Your task to perform on an android device: Search for vegetarian restaurants on Maps Image 0: 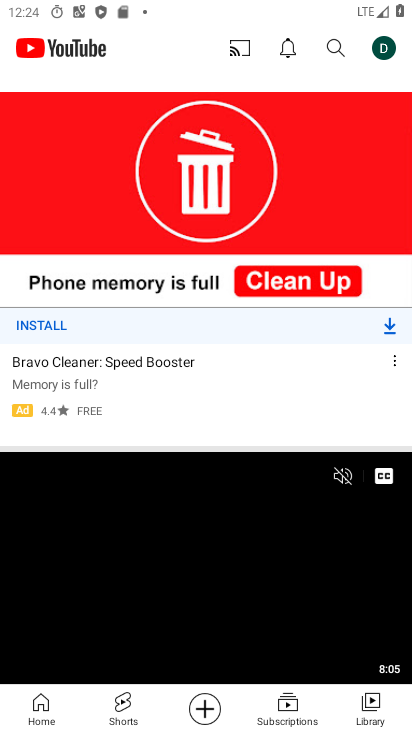
Step 0: press home button
Your task to perform on an android device: Search for vegetarian restaurants on Maps Image 1: 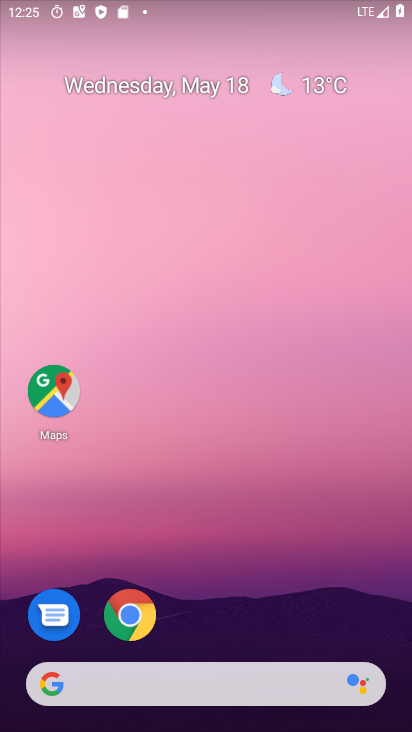
Step 1: drag from (154, 686) to (298, 198)
Your task to perform on an android device: Search for vegetarian restaurants on Maps Image 2: 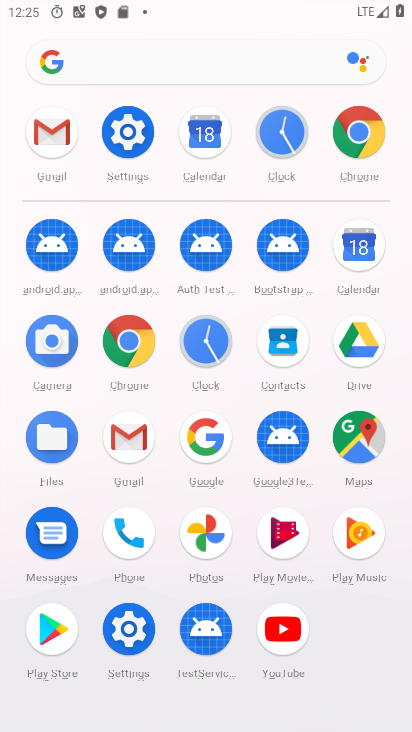
Step 2: click (346, 448)
Your task to perform on an android device: Search for vegetarian restaurants on Maps Image 3: 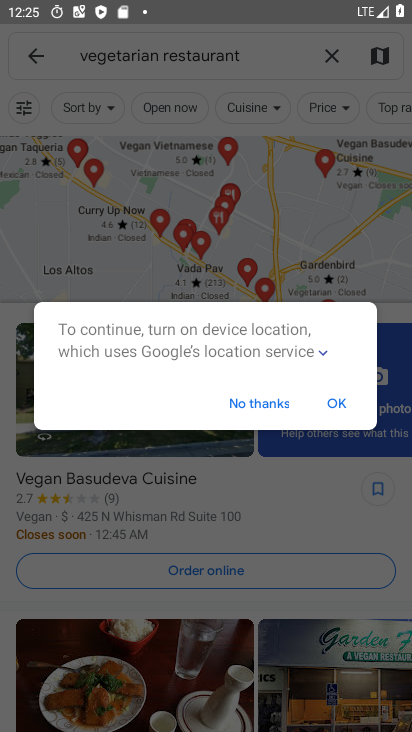
Step 3: click (334, 406)
Your task to perform on an android device: Search for vegetarian restaurants on Maps Image 4: 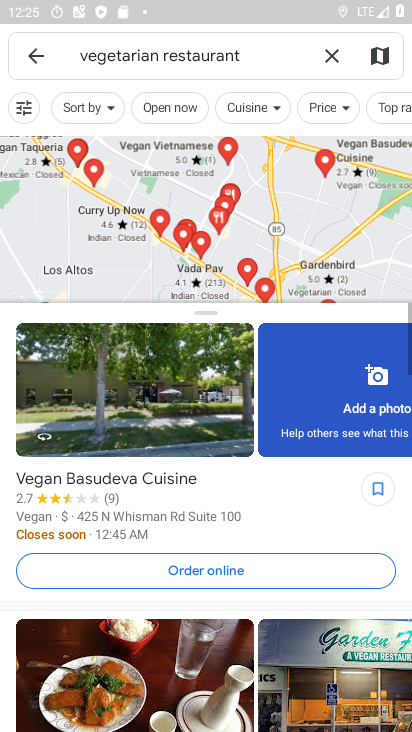
Step 4: task complete